Your task to perform on an android device: View the shopping cart on target.com. Image 0: 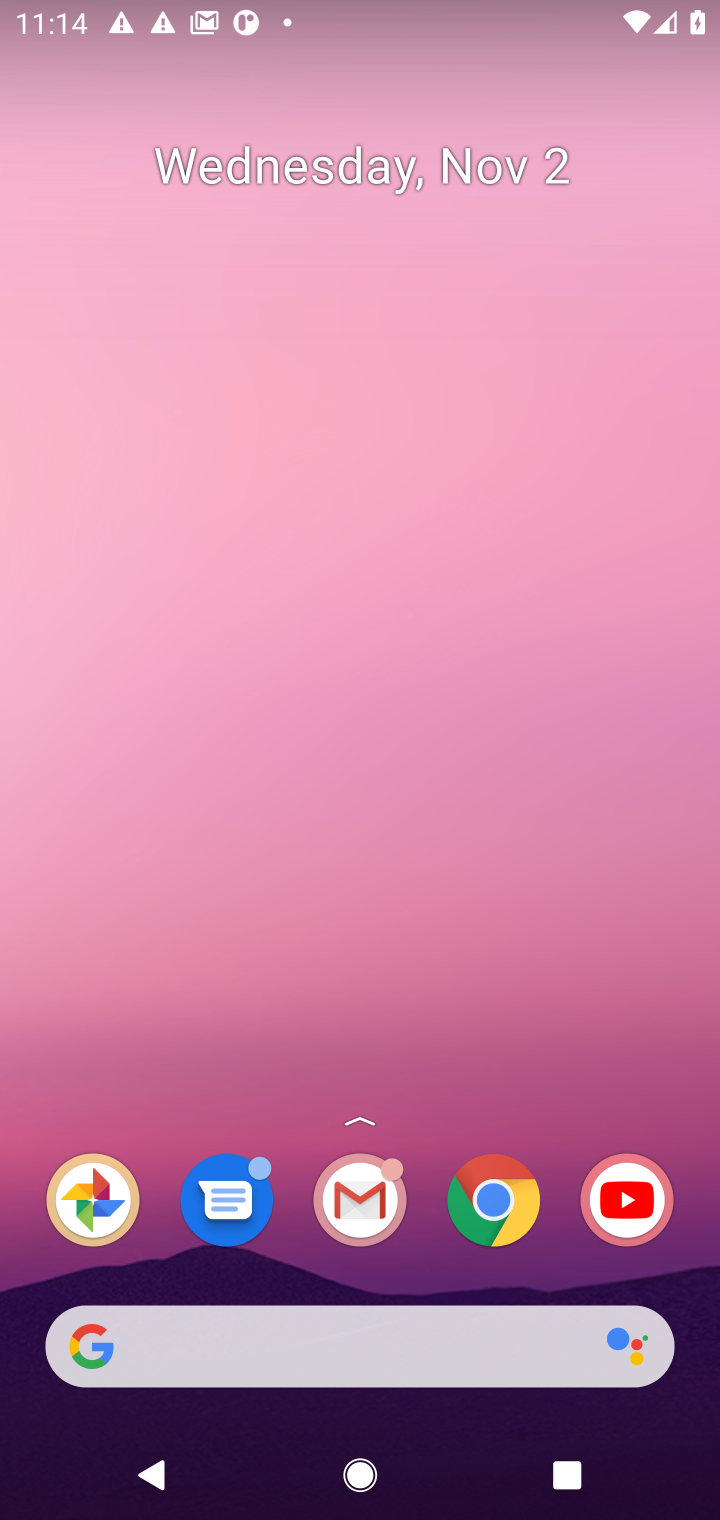
Step 0: click (498, 1226)
Your task to perform on an android device: View the shopping cart on target.com. Image 1: 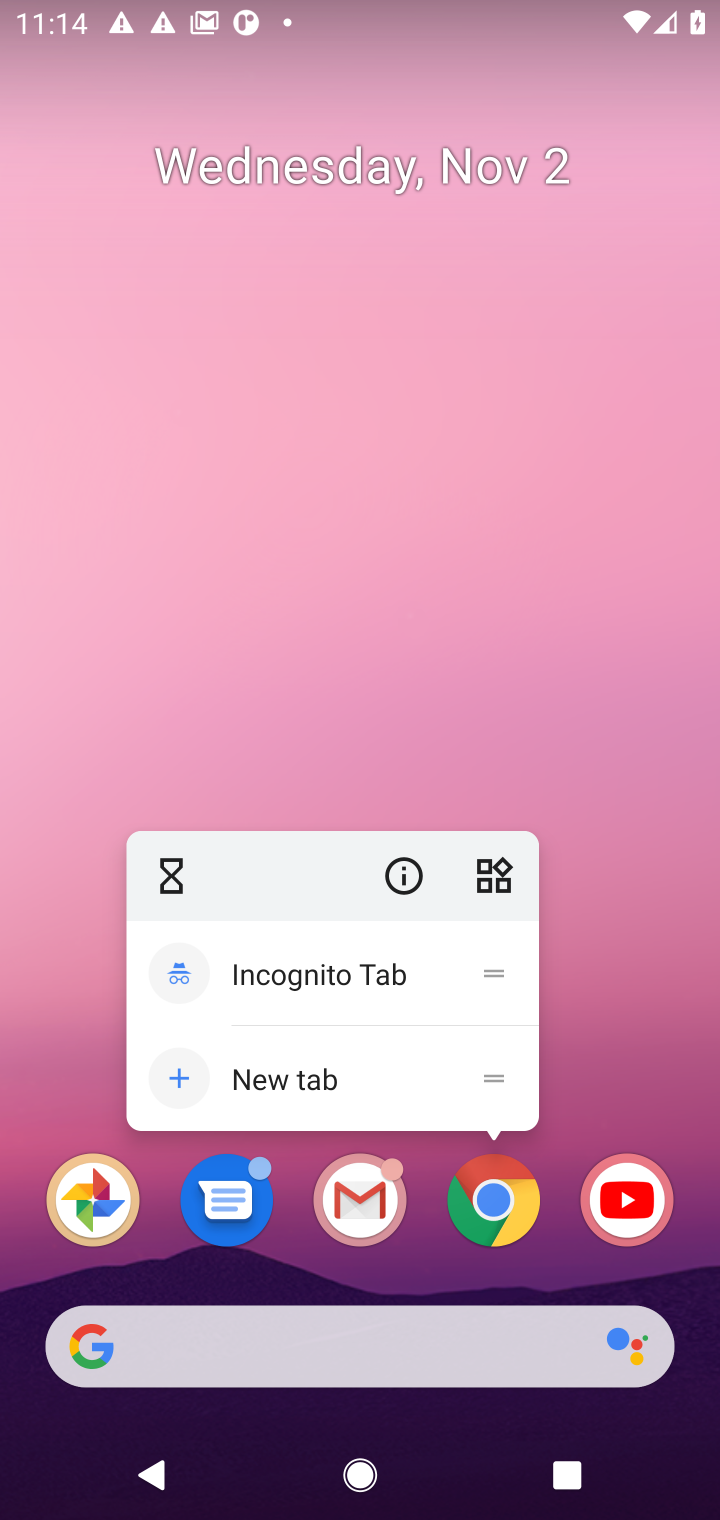
Step 1: click (498, 1226)
Your task to perform on an android device: View the shopping cart on target.com. Image 2: 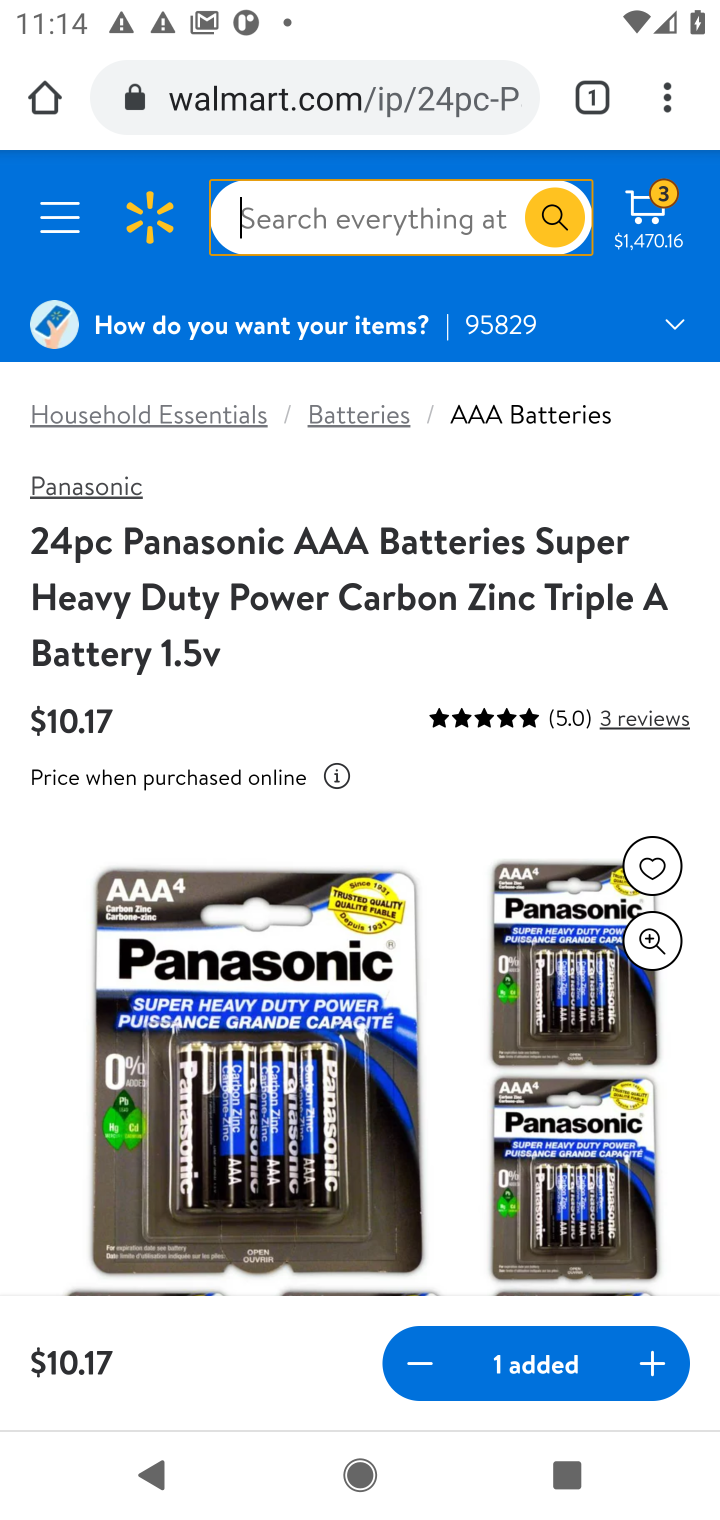
Step 2: click (380, 94)
Your task to perform on an android device: View the shopping cart on target.com. Image 3: 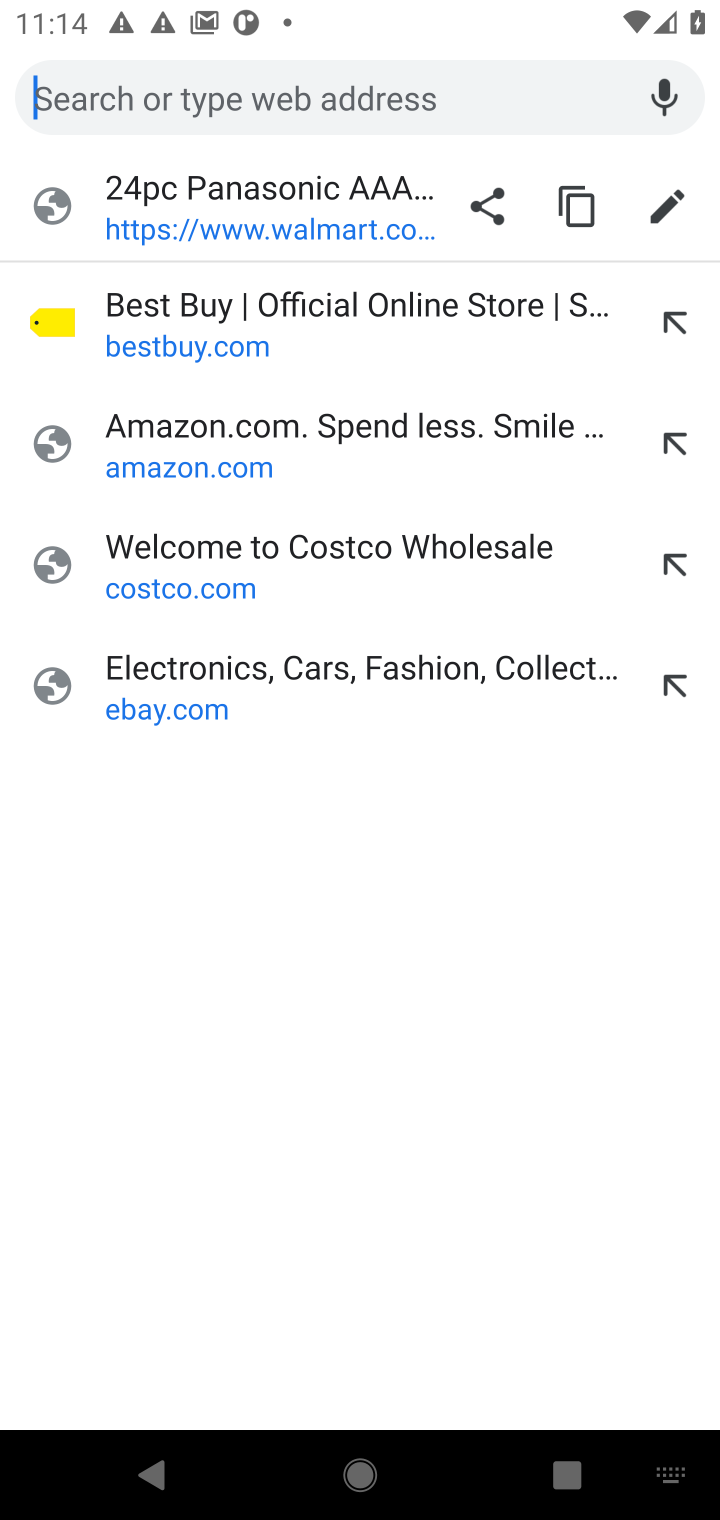
Step 3: type "target.com"
Your task to perform on an android device: View the shopping cart on target.com. Image 4: 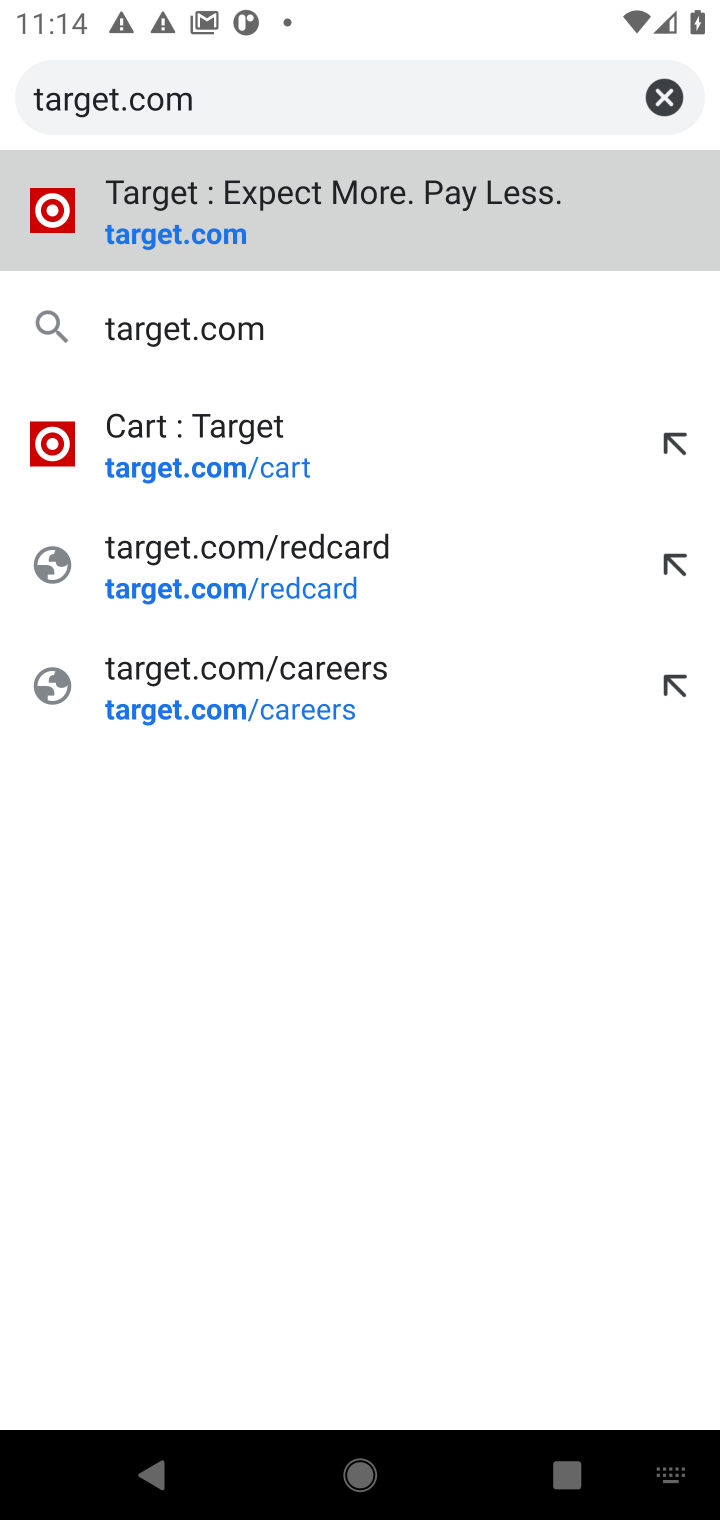
Step 4: press enter
Your task to perform on an android device: View the shopping cart on target.com. Image 5: 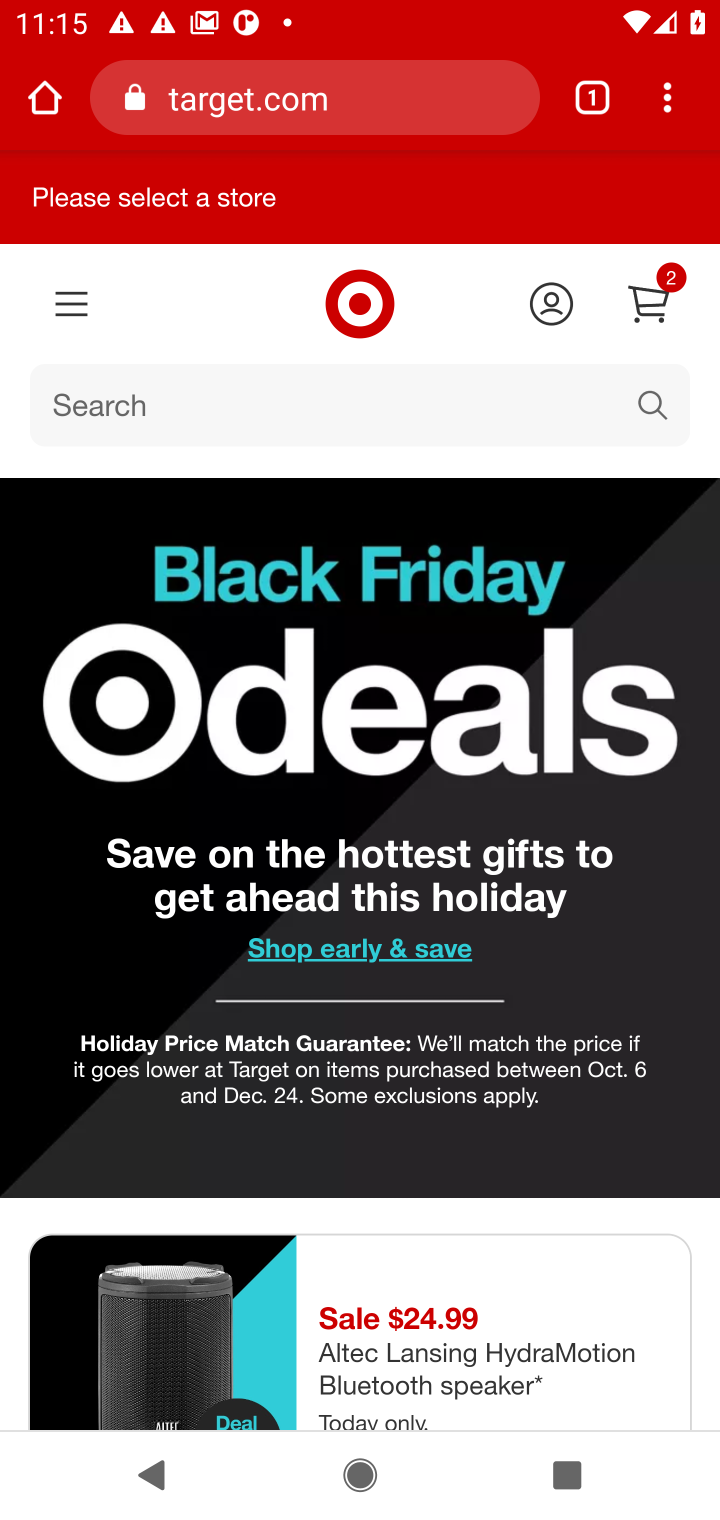
Step 5: click (653, 310)
Your task to perform on an android device: View the shopping cart on target.com. Image 6: 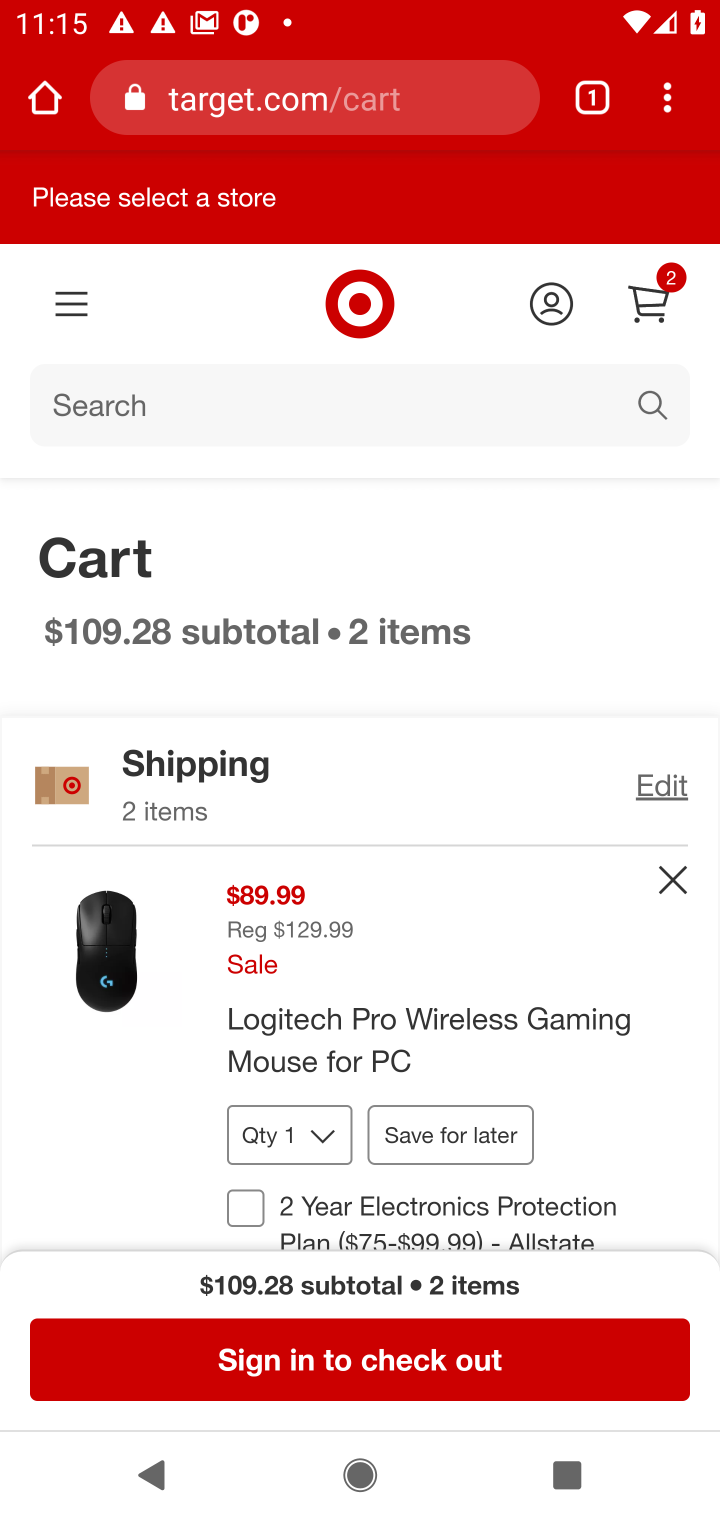
Step 6: task complete